Your task to perform on an android device: change the clock style Image 0: 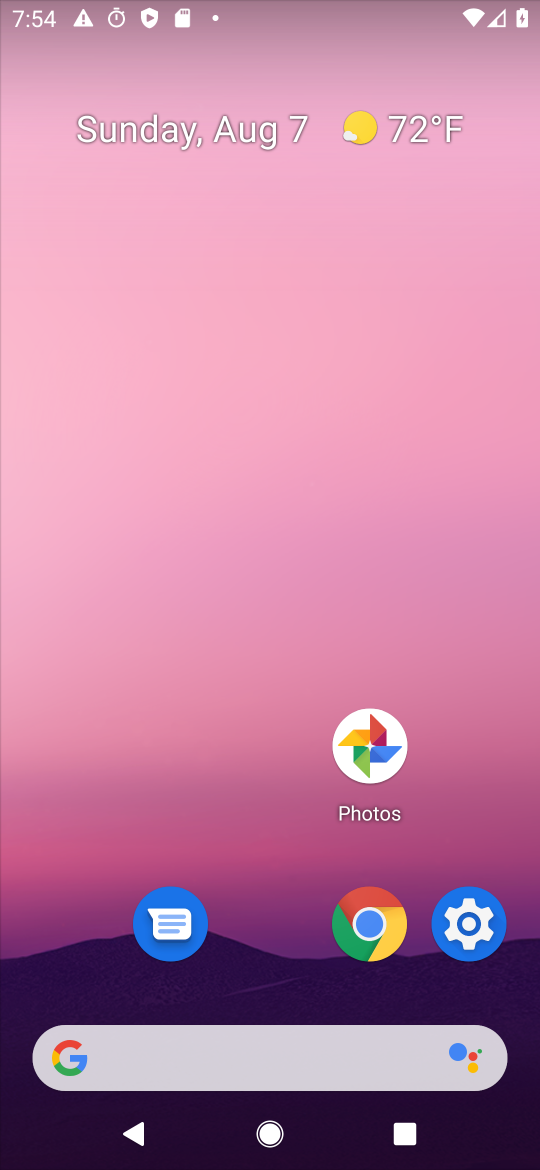
Step 0: press home button
Your task to perform on an android device: change the clock style Image 1: 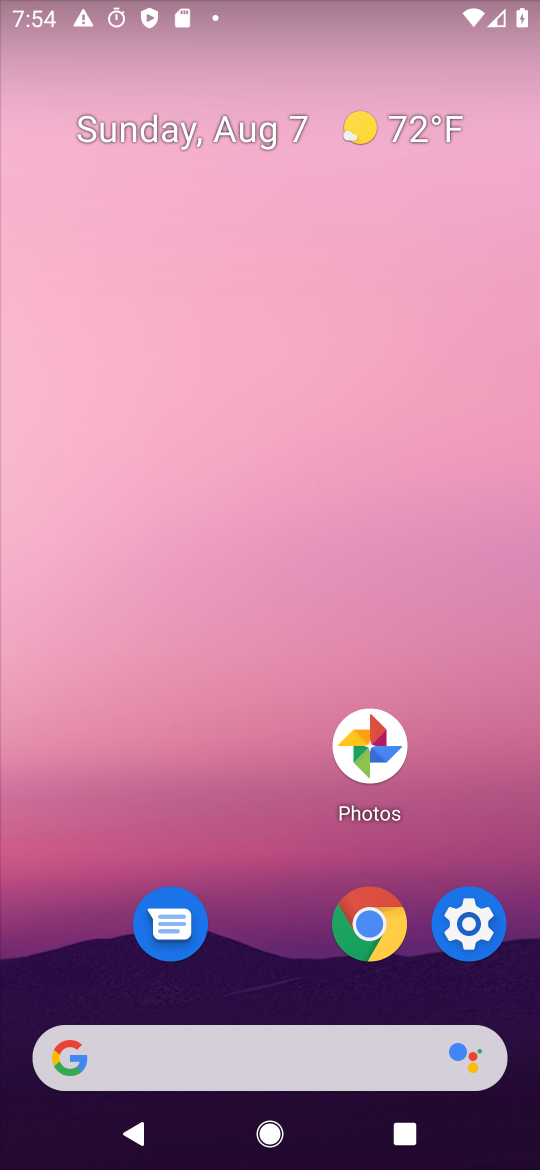
Step 1: drag from (326, 1076) to (285, 166)
Your task to perform on an android device: change the clock style Image 2: 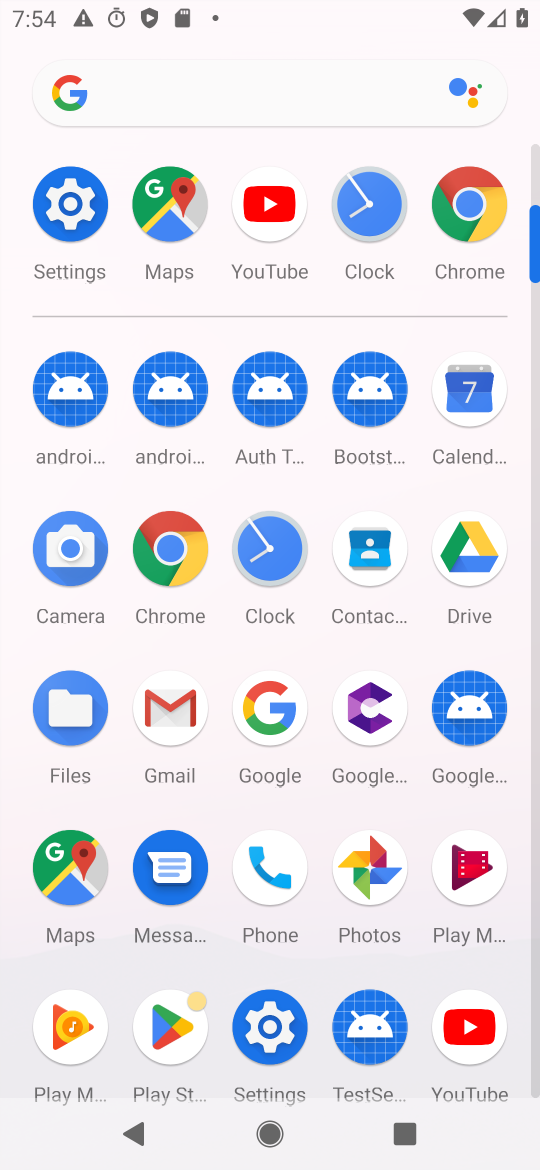
Step 2: click (268, 554)
Your task to perform on an android device: change the clock style Image 3: 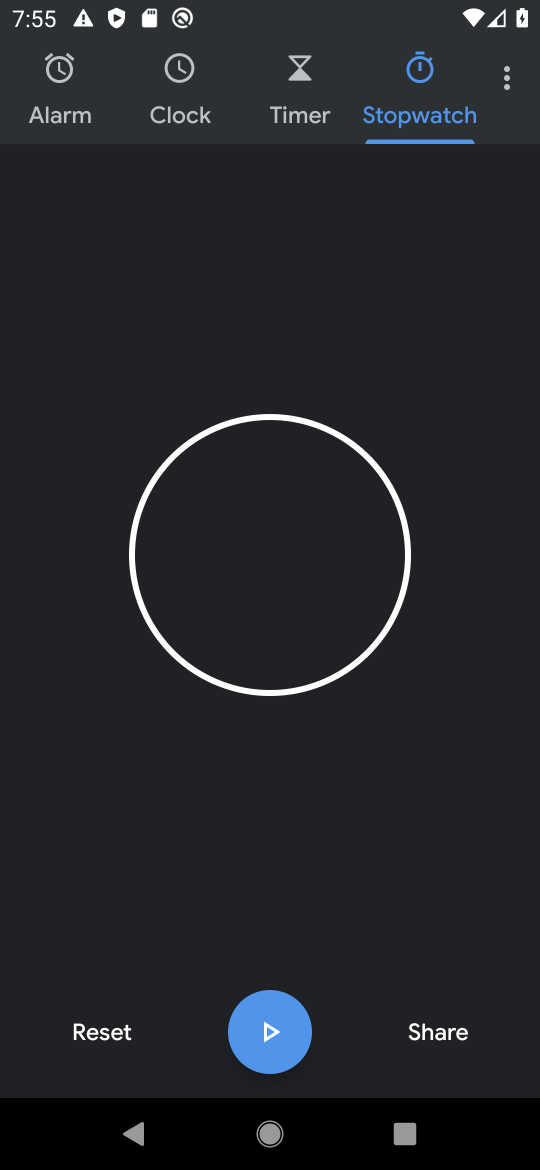
Step 3: click (499, 100)
Your task to perform on an android device: change the clock style Image 4: 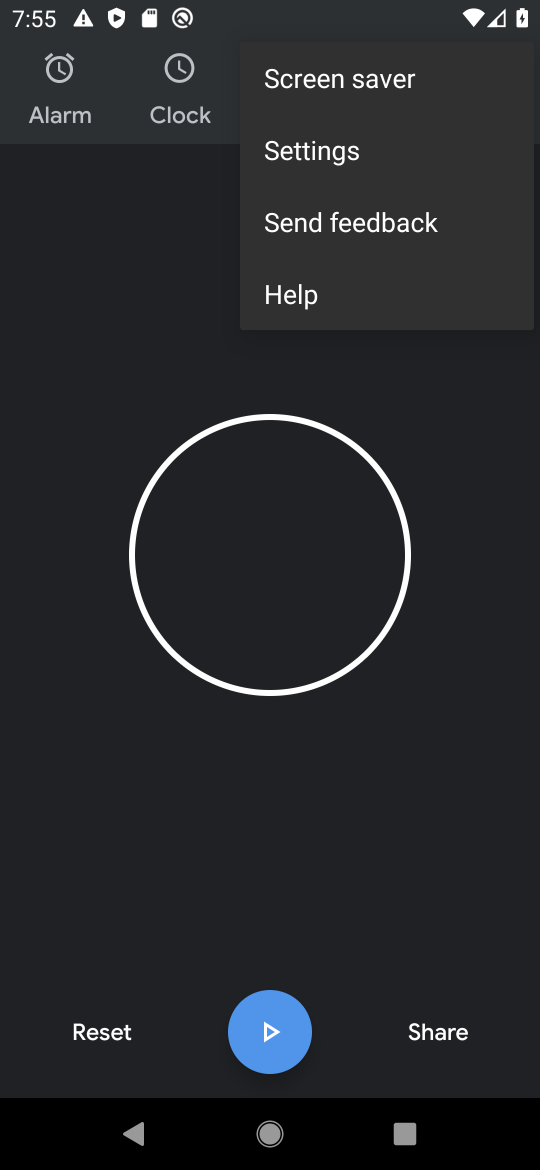
Step 4: click (342, 144)
Your task to perform on an android device: change the clock style Image 5: 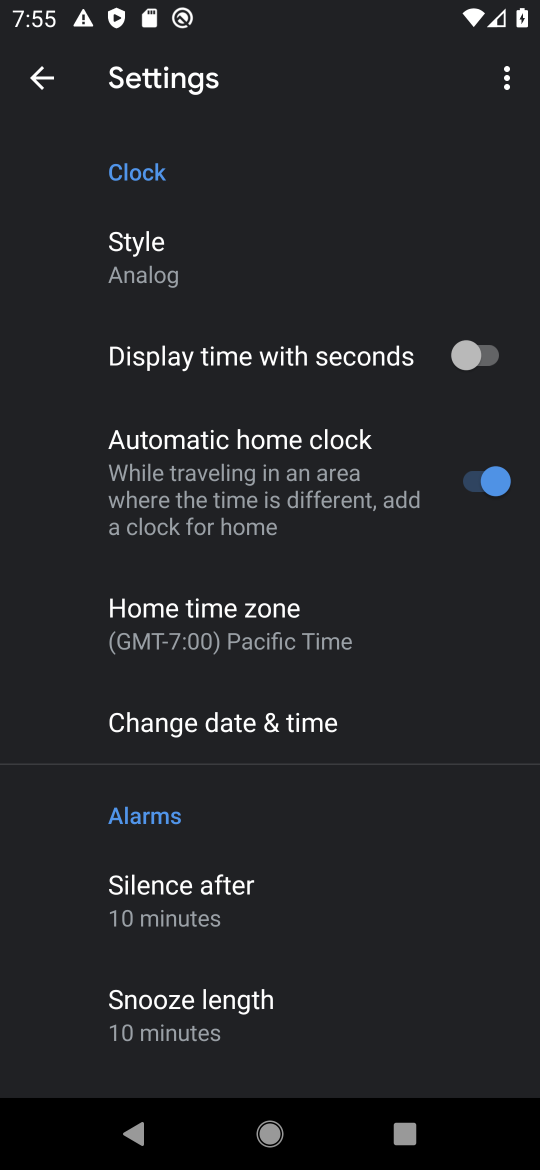
Step 5: click (244, 249)
Your task to perform on an android device: change the clock style Image 6: 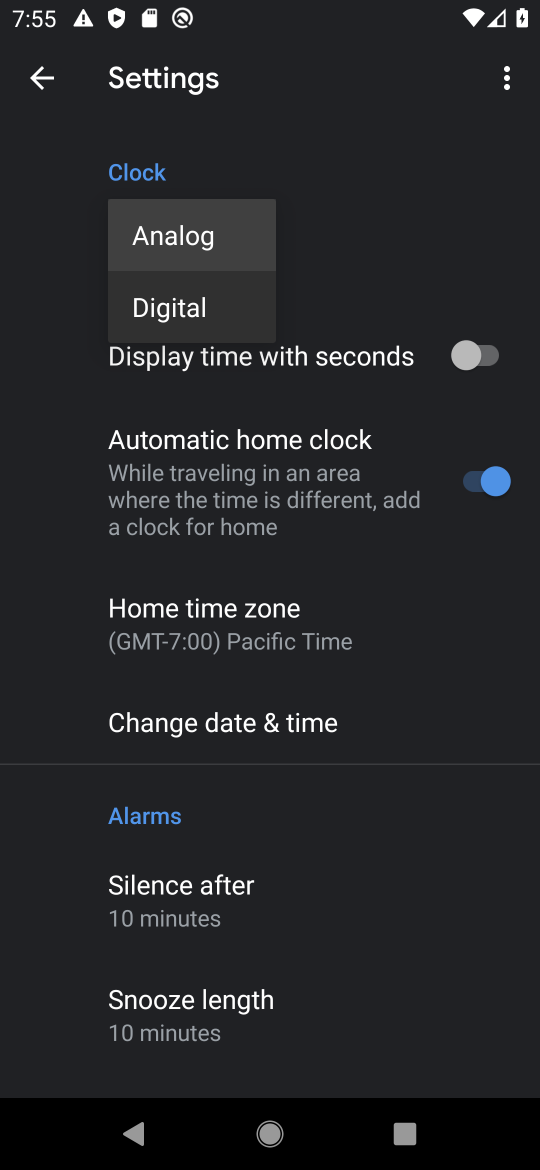
Step 6: click (198, 298)
Your task to perform on an android device: change the clock style Image 7: 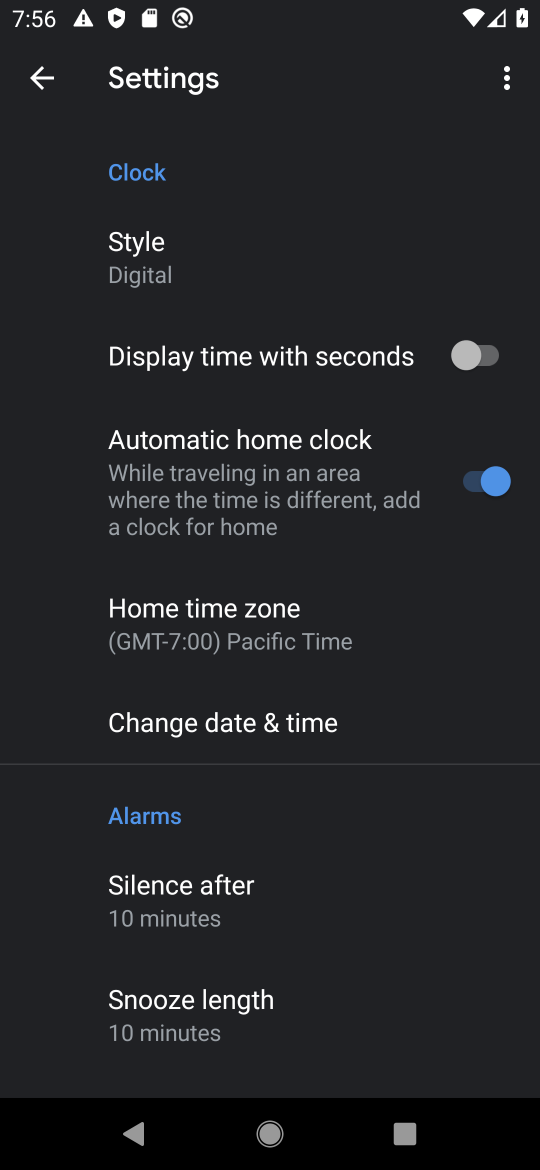
Step 7: task complete